Your task to perform on an android device: refresh tabs in the chrome app Image 0: 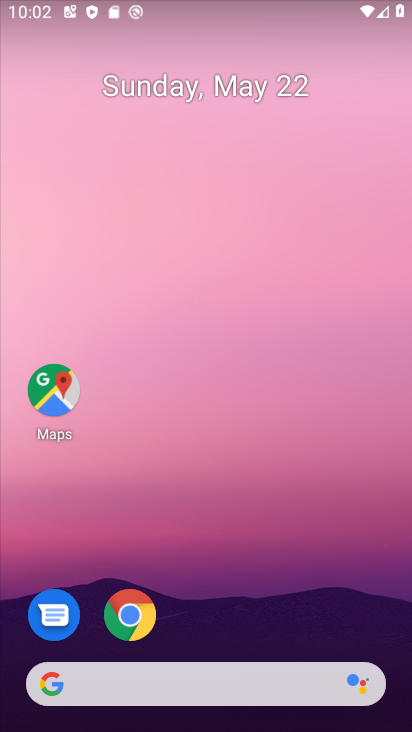
Step 0: click (133, 605)
Your task to perform on an android device: refresh tabs in the chrome app Image 1: 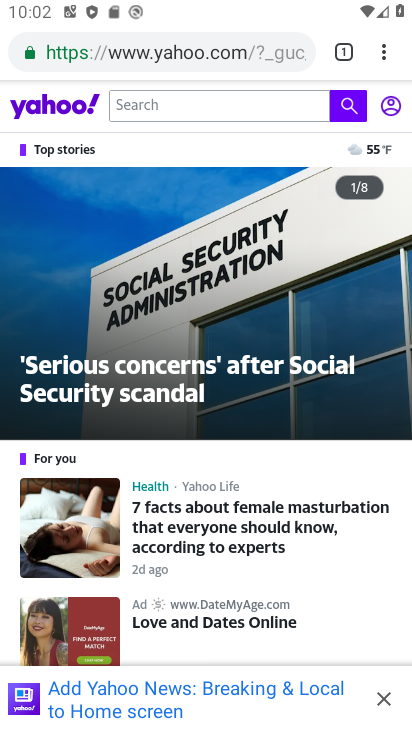
Step 1: click (380, 51)
Your task to perform on an android device: refresh tabs in the chrome app Image 2: 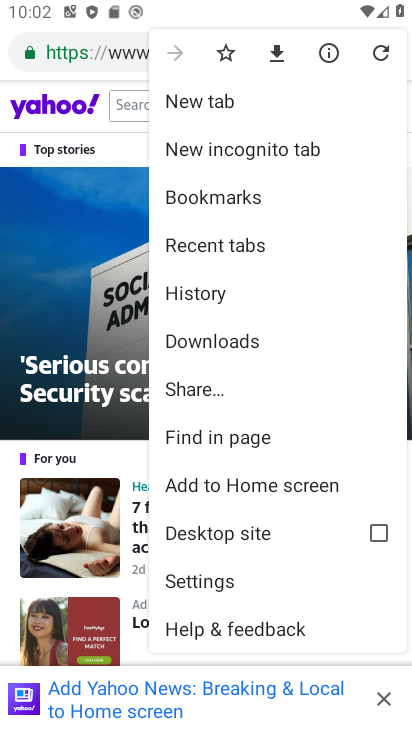
Step 2: click (267, 95)
Your task to perform on an android device: refresh tabs in the chrome app Image 3: 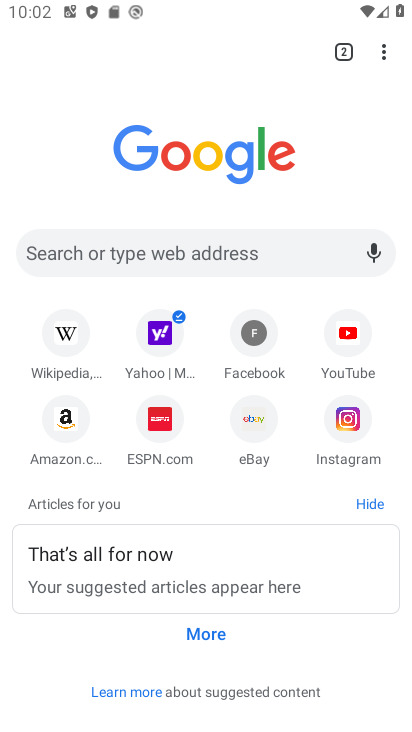
Step 3: click (384, 48)
Your task to perform on an android device: refresh tabs in the chrome app Image 4: 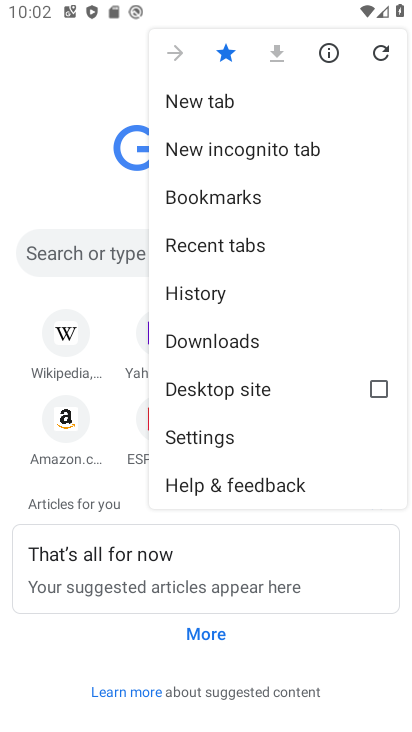
Step 4: click (381, 53)
Your task to perform on an android device: refresh tabs in the chrome app Image 5: 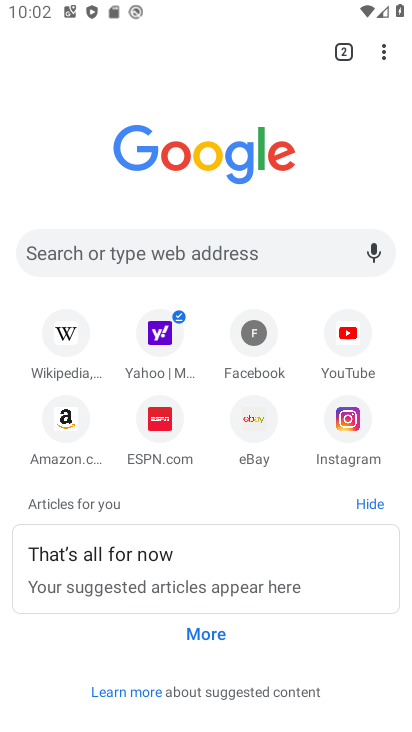
Step 5: task complete